Your task to perform on an android device: Search for the best vacuum on Amazon. Image 0: 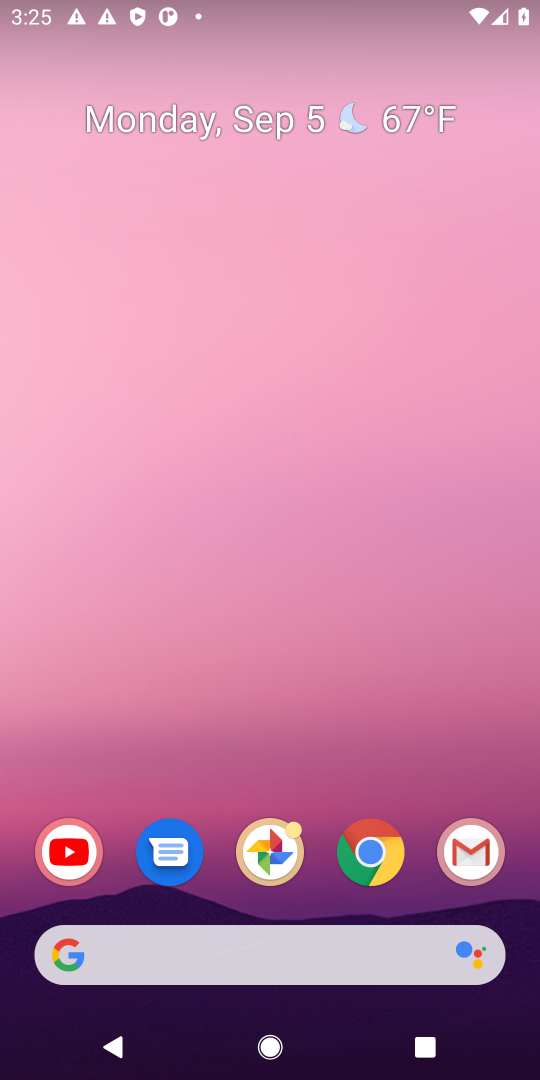
Step 0: click (376, 858)
Your task to perform on an android device: Search for the best vacuum on Amazon. Image 1: 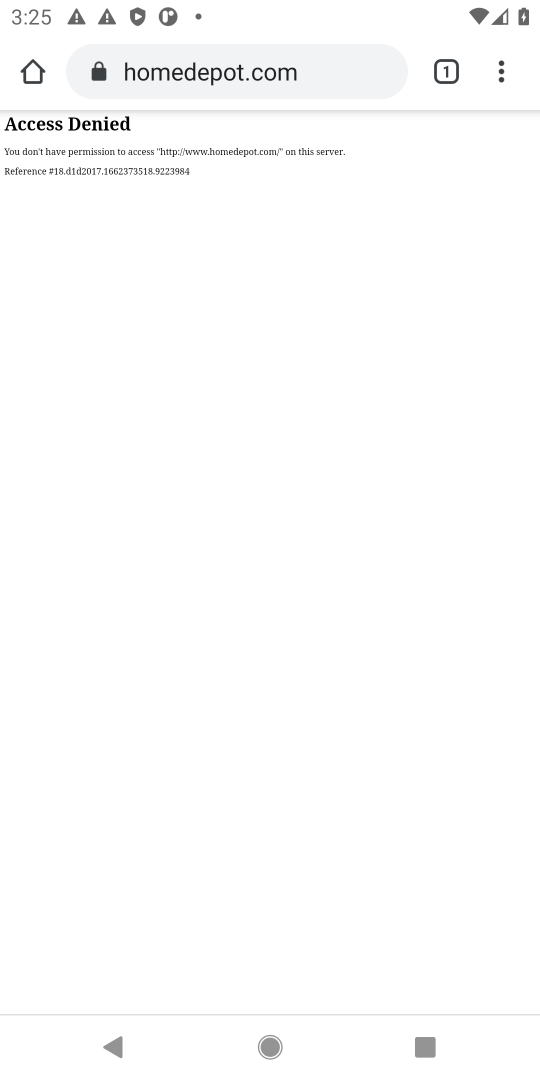
Step 1: click (318, 59)
Your task to perform on an android device: Search for the best vacuum on Amazon. Image 2: 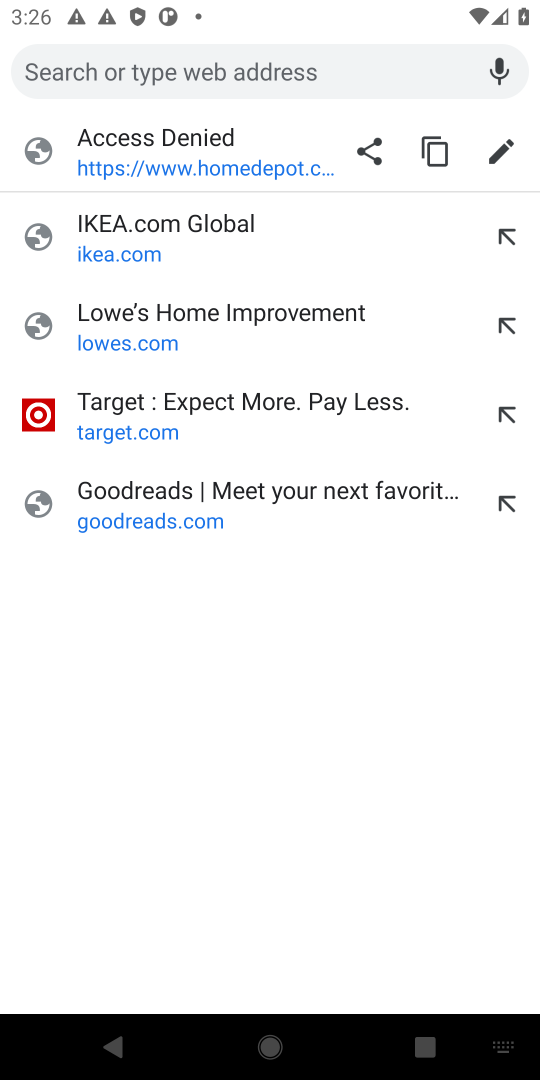
Step 2: type "Amazon"
Your task to perform on an android device: Search for the best vacuum on Amazon. Image 3: 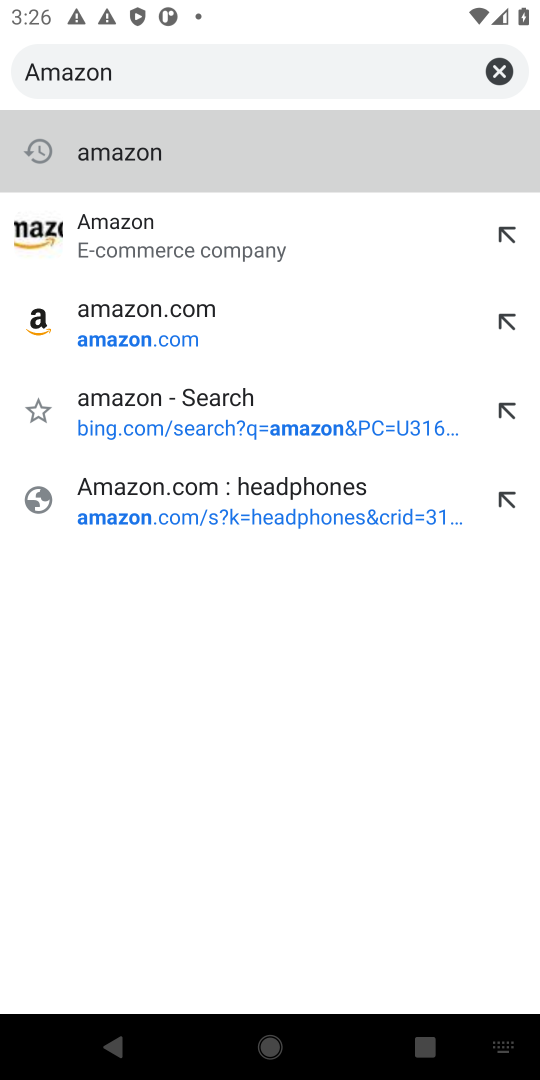
Step 3: click (103, 237)
Your task to perform on an android device: Search for the best vacuum on Amazon. Image 4: 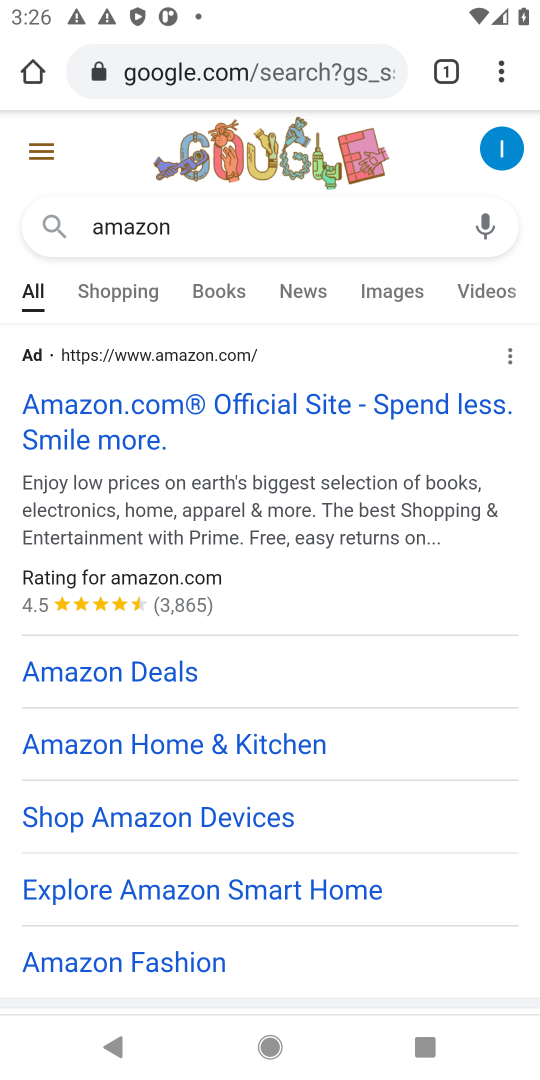
Step 4: click (91, 403)
Your task to perform on an android device: Search for the best vacuum on Amazon. Image 5: 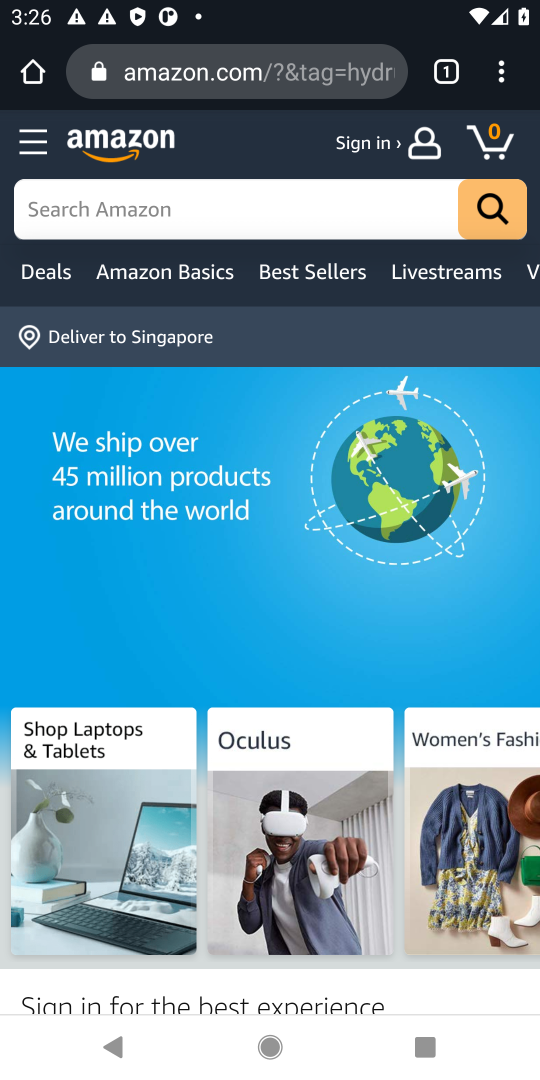
Step 5: click (129, 202)
Your task to perform on an android device: Search for the best vacuum on Amazon. Image 6: 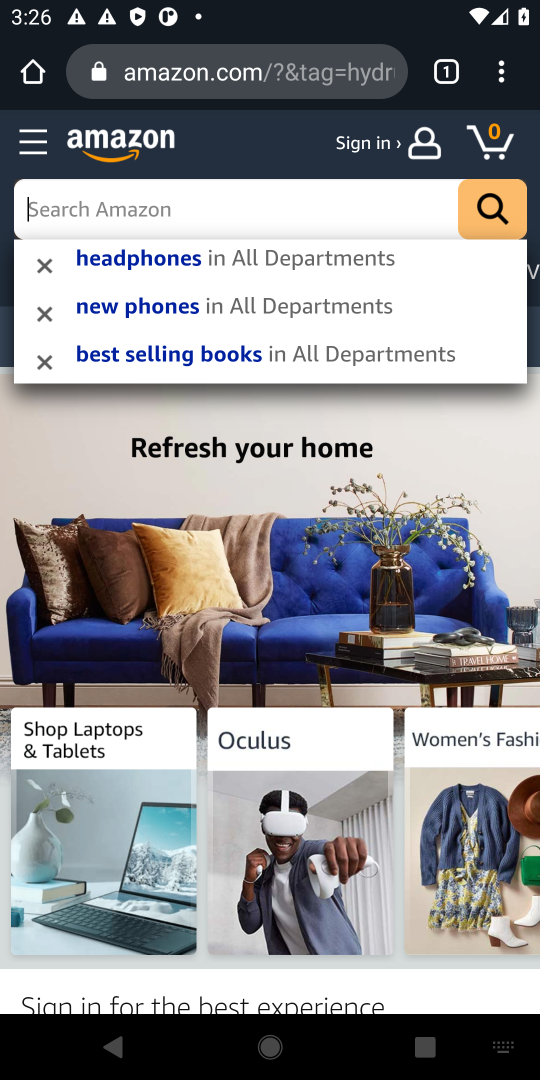
Step 6: type " vacuum"
Your task to perform on an android device: Search for the best vacuum on Amazon. Image 7: 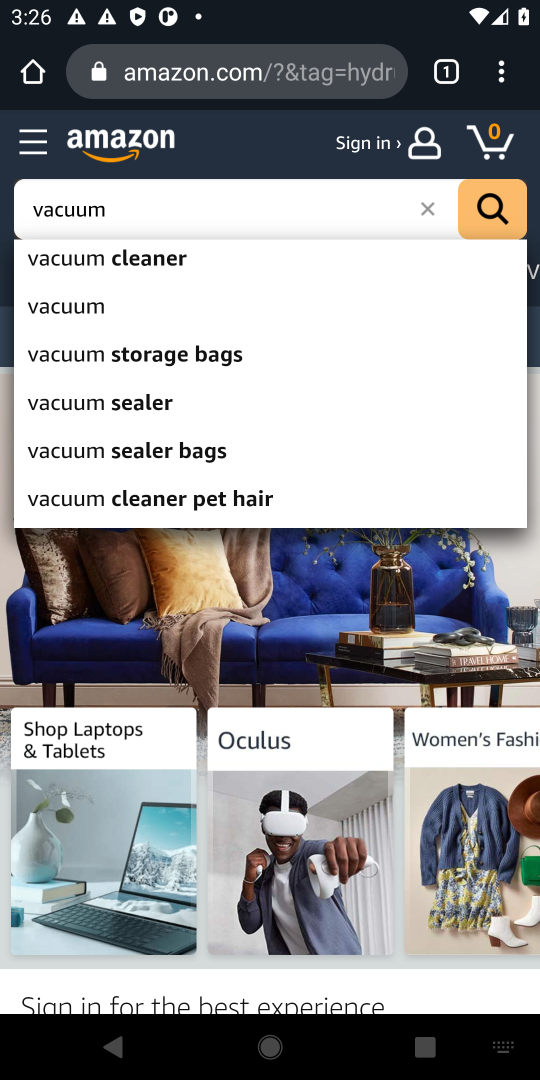
Step 7: click (80, 296)
Your task to perform on an android device: Search for the best vacuum on Amazon. Image 8: 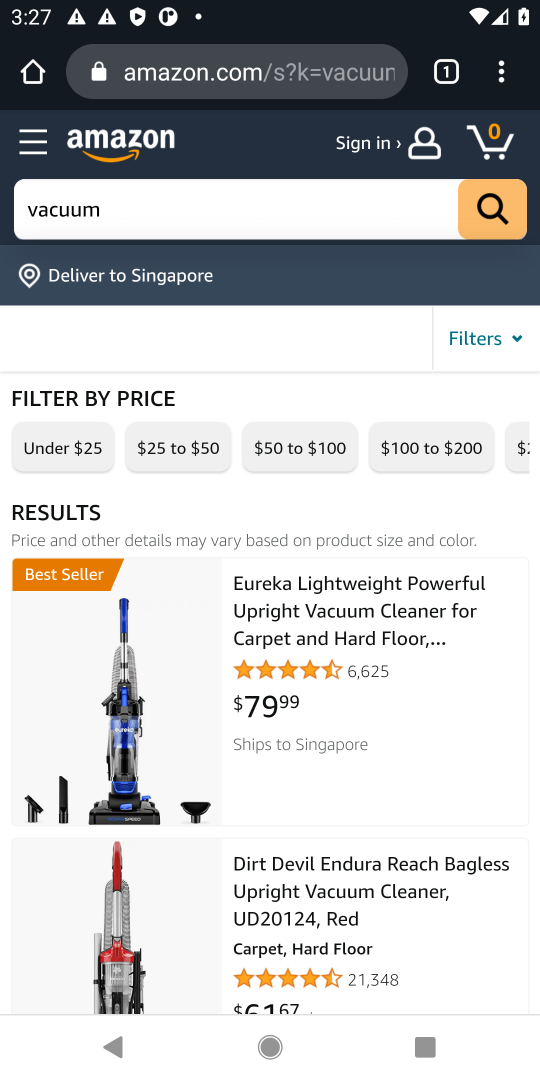
Step 8: drag from (225, 831) to (235, 307)
Your task to perform on an android device: Search for the best vacuum on Amazon. Image 9: 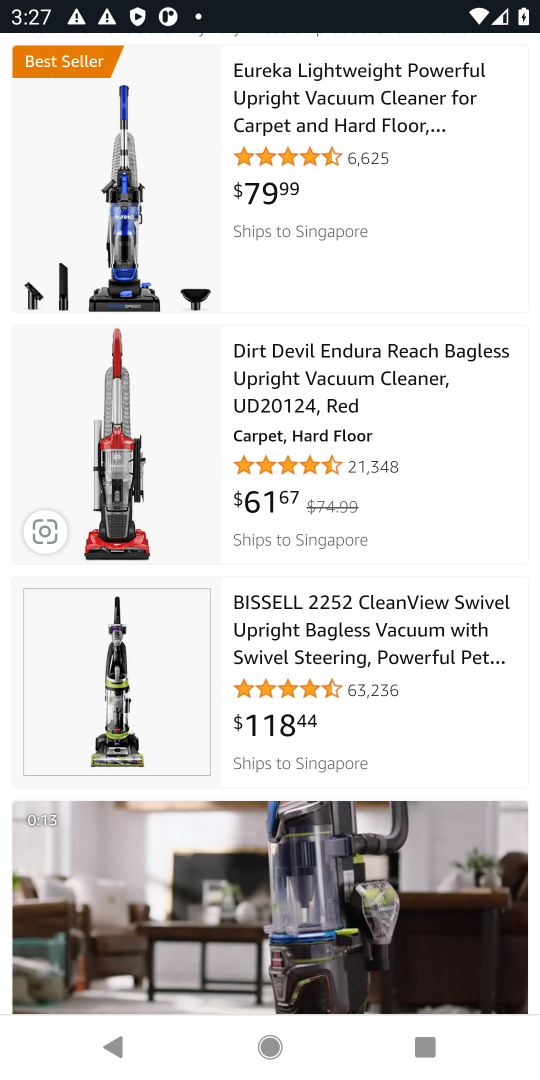
Step 9: drag from (223, 785) to (231, 129)
Your task to perform on an android device: Search for the best vacuum on Amazon. Image 10: 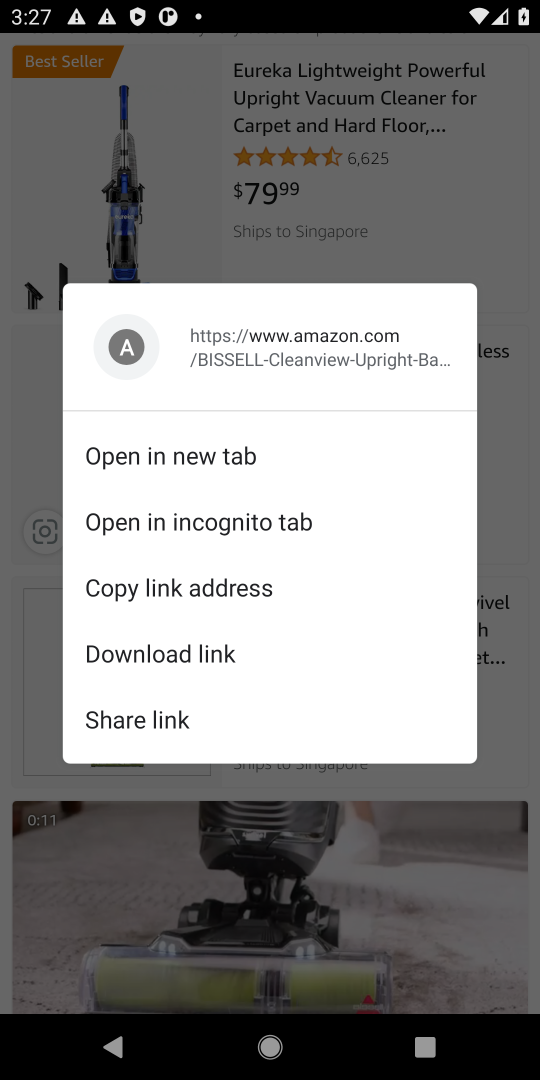
Step 10: click (234, 784)
Your task to perform on an android device: Search for the best vacuum on Amazon. Image 11: 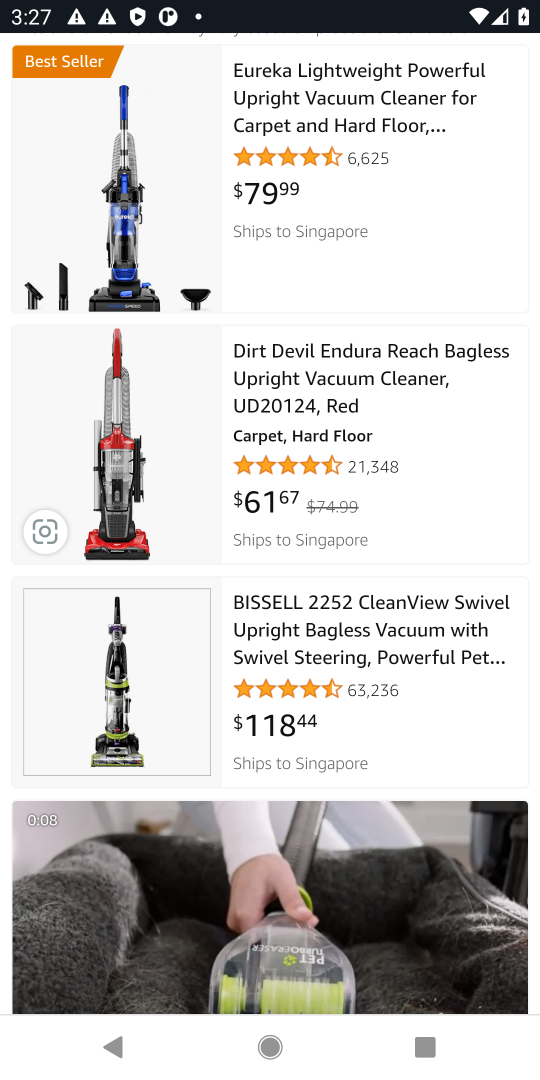
Step 11: task complete